Your task to perform on an android device: turn on priority inbox in the gmail app Image 0: 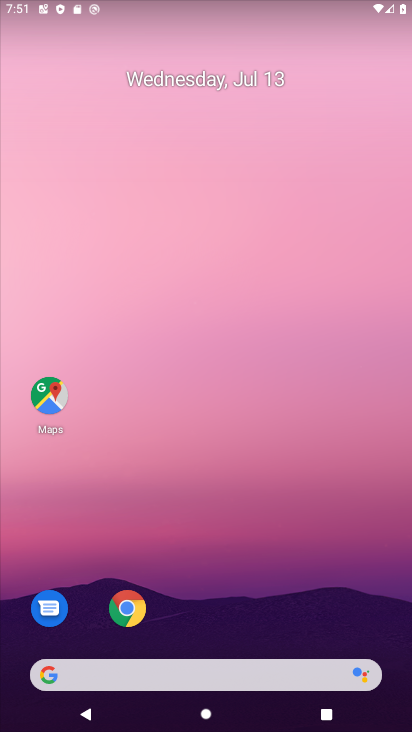
Step 0: drag from (153, 640) to (269, 725)
Your task to perform on an android device: turn on priority inbox in the gmail app Image 1: 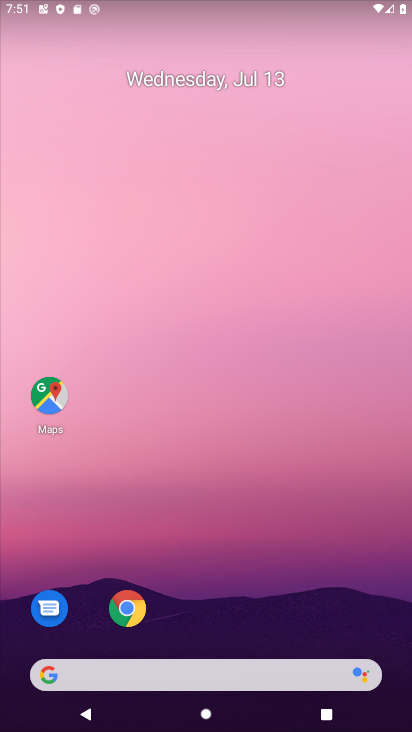
Step 1: click (127, 518)
Your task to perform on an android device: turn on priority inbox in the gmail app Image 2: 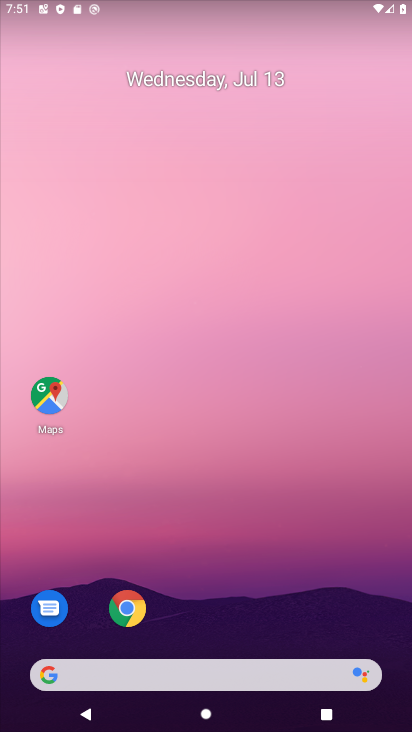
Step 2: drag from (209, 618) to (224, 8)
Your task to perform on an android device: turn on priority inbox in the gmail app Image 3: 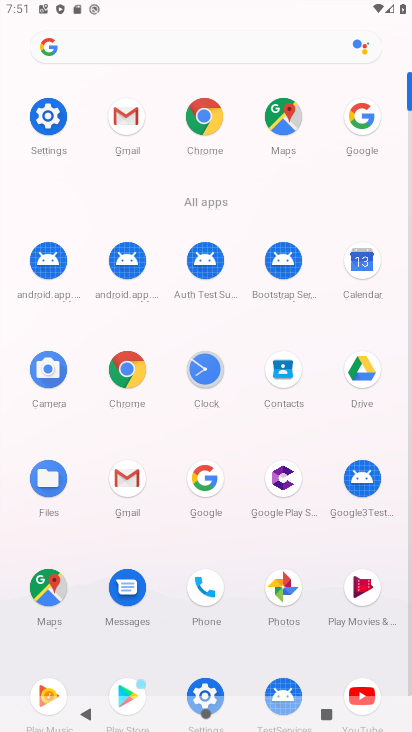
Step 3: click (136, 509)
Your task to perform on an android device: turn on priority inbox in the gmail app Image 4: 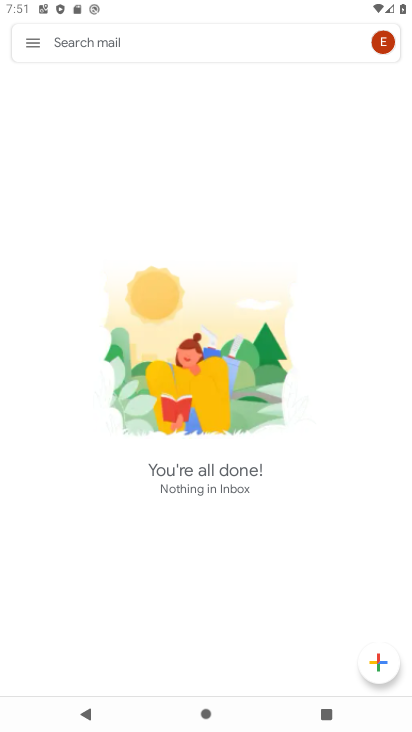
Step 4: click (36, 37)
Your task to perform on an android device: turn on priority inbox in the gmail app Image 5: 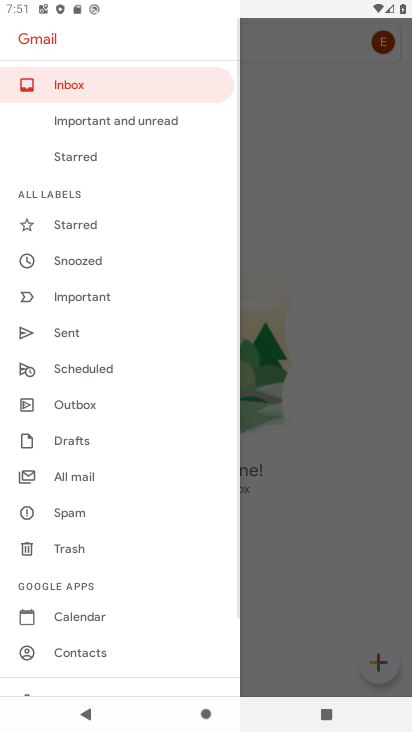
Step 5: drag from (64, 587) to (28, 178)
Your task to perform on an android device: turn on priority inbox in the gmail app Image 6: 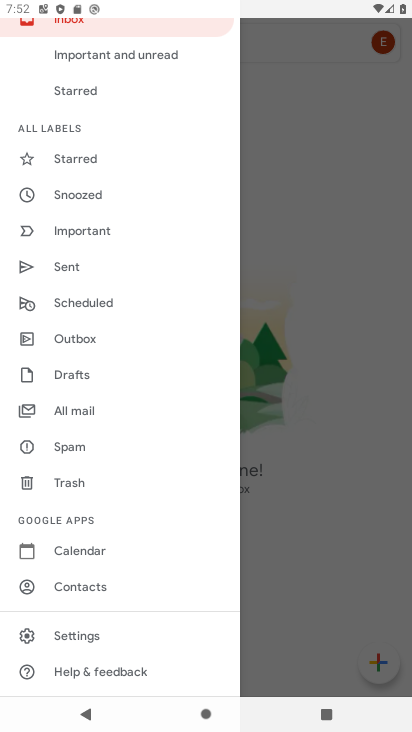
Step 6: click (76, 628)
Your task to perform on an android device: turn on priority inbox in the gmail app Image 7: 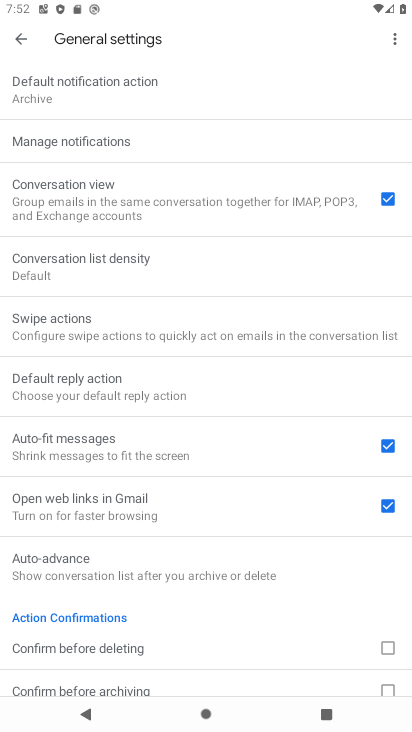
Step 7: click (32, 34)
Your task to perform on an android device: turn on priority inbox in the gmail app Image 8: 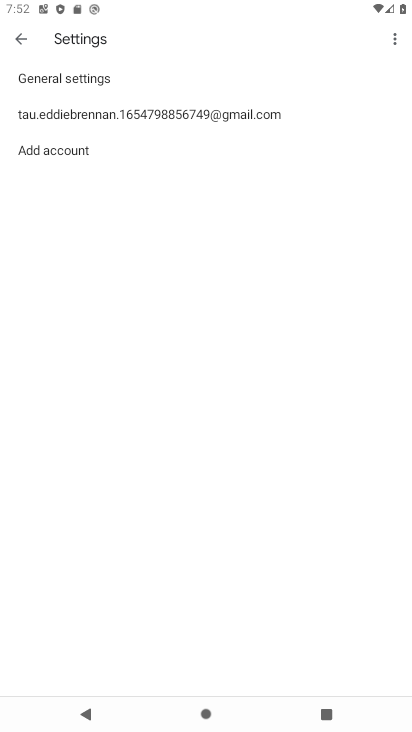
Step 8: click (63, 120)
Your task to perform on an android device: turn on priority inbox in the gmail app Image 9: 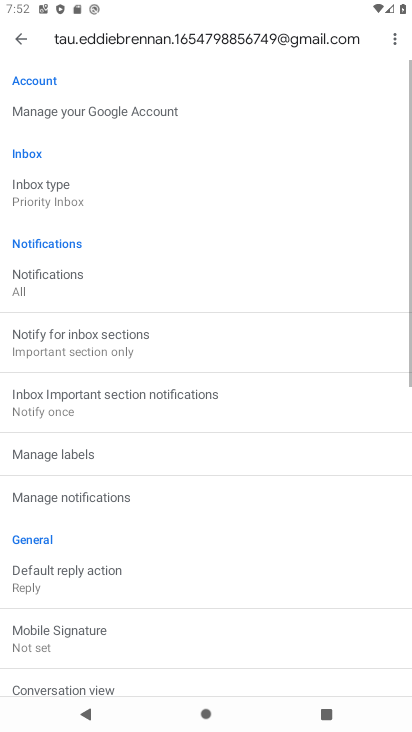
Step 9: click (61, 212)
Your task to perform on an android device: turn on priority inbox in the gmail app Image 10: 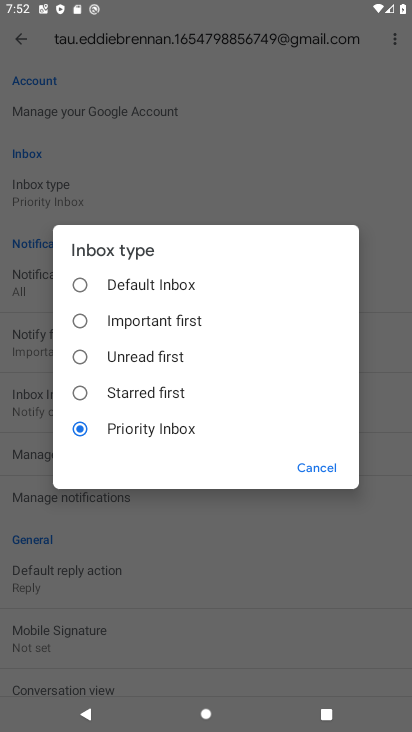
Step 10: click (146, 421)
Your task to perform on an android device: turn on priority inbox in the gmail app Image 11: 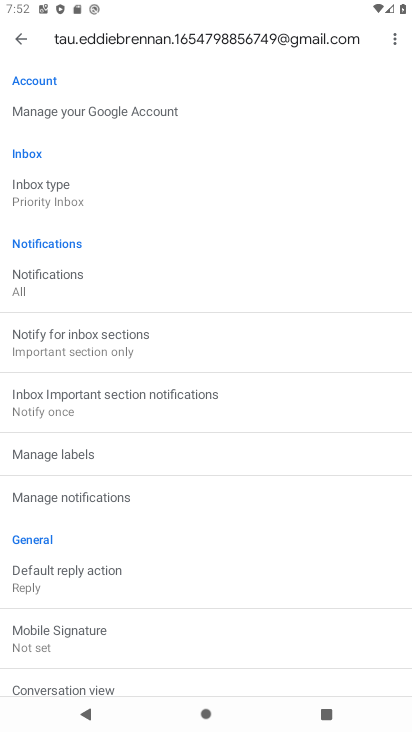
Step 11: task complete